Your task to perform on an android device: turn off notifications settings in the gmail app Image 0: 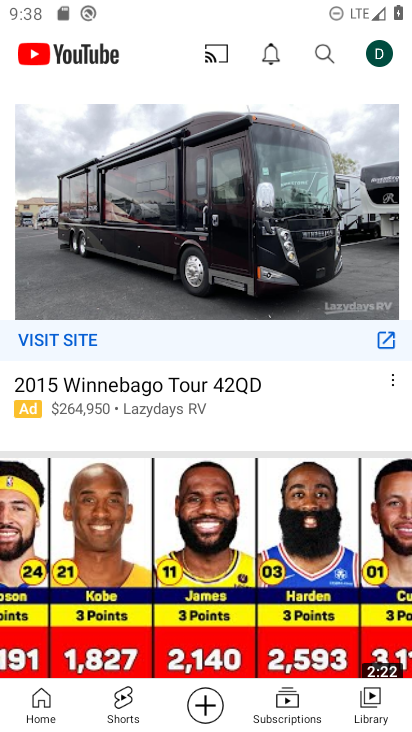
Step 0: press home button
Your task to perform on an android device: turn off notifications settings in the gmail app Image 1: 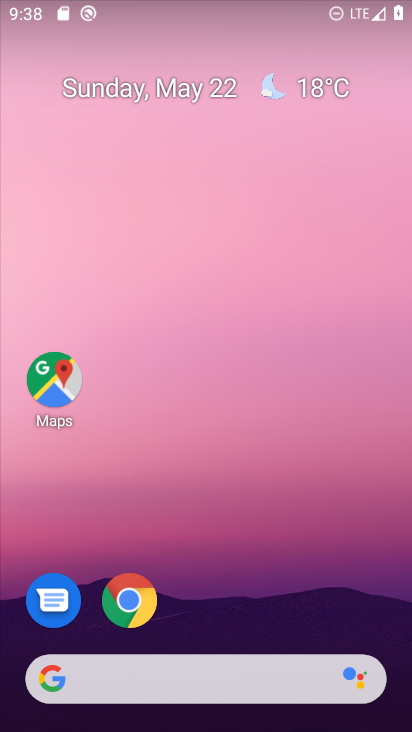
Step 1: drag from (332, 419) to (252, 46)
Your task to perform on an android device: turn off notifications settings in the gmail app Image 2: 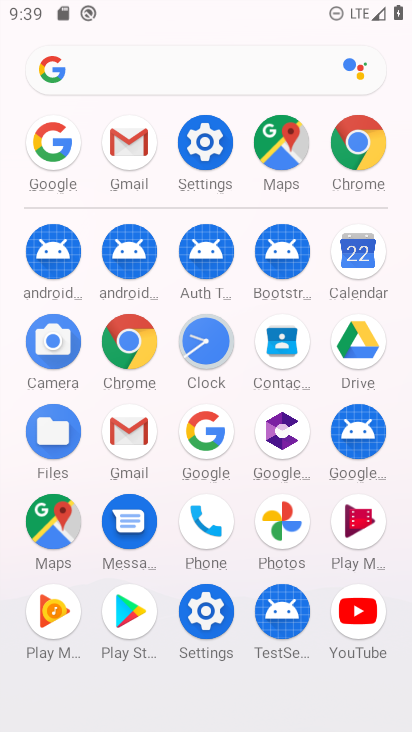
Step 2: click (141, 423)
Your task to perform on an android device: turn off notifications settings in the gmail app Image 3: 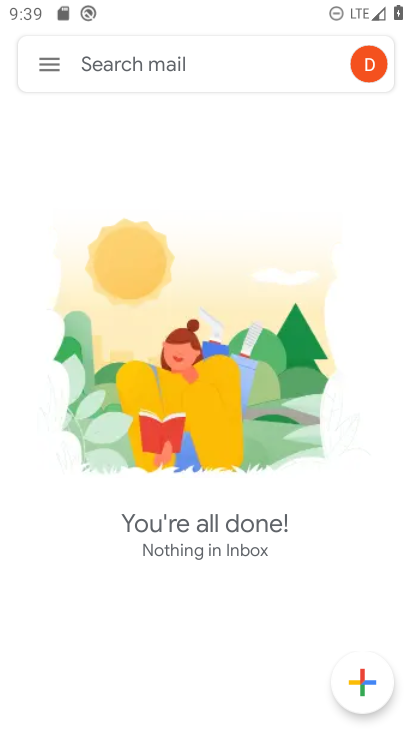
Step 3: click (45, 58)
Your task to perform on an android device: turn off notifications settings in the gmail app Image 4: 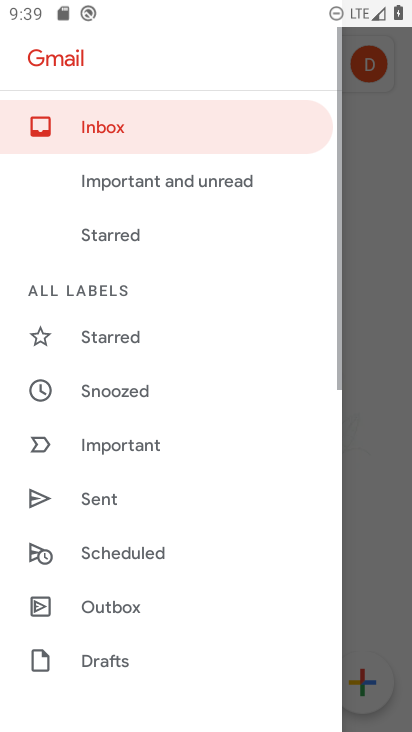
Step 4: drag from (148, 625) to (269, 99)
Your task to perform on an android device: turn off notifications settings in the gmail app Image 5: 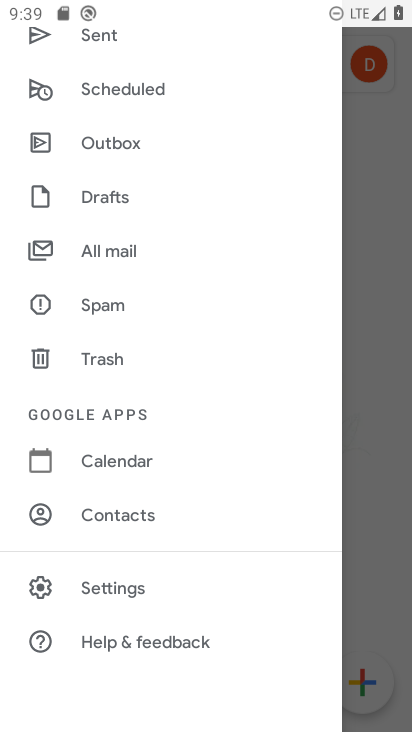
Step 5: click (155, 578)
Your task to perform on an android device: turn off notifications settings in the gmail app Image 6: 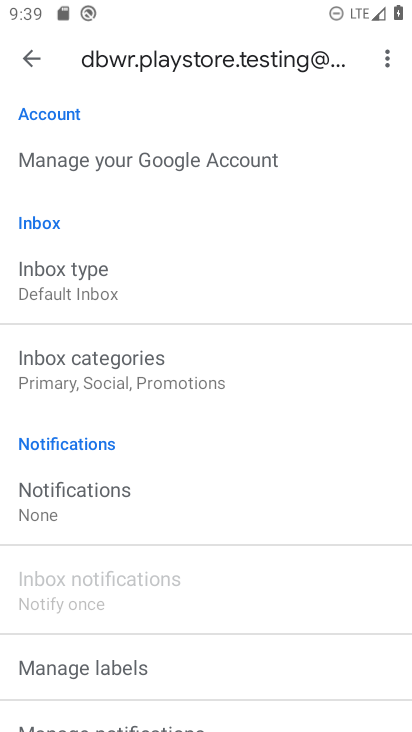
Step 6: click (102, 473)
Your task to perform on an android device: turn off notifications settings in the gmail app Image 7: 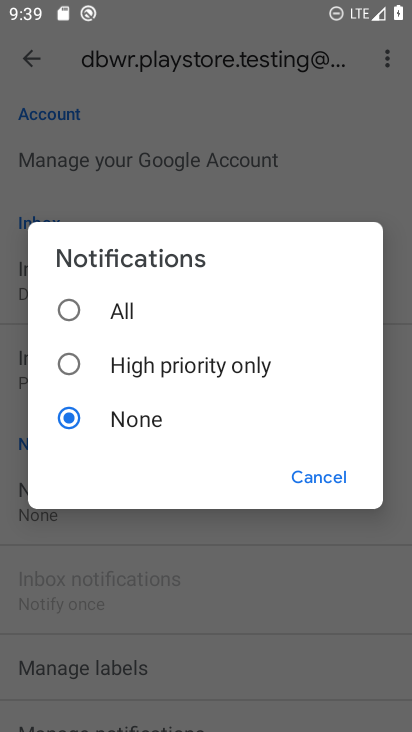
Step 7: task complete